Your task to perform on an android device: find which apps use the phone's location Image 0: 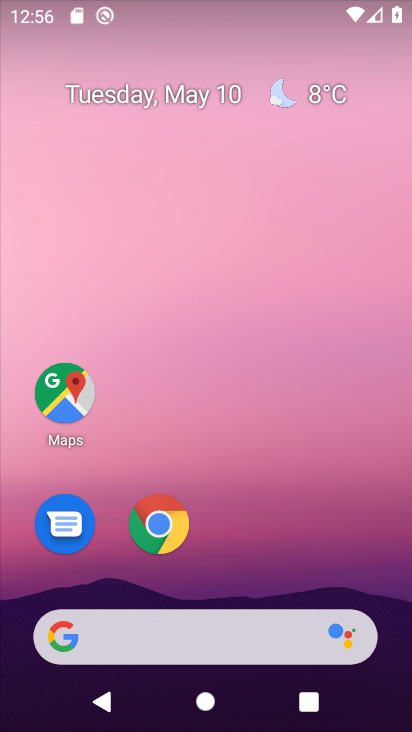
Step 0: drag from (234, 505) to (194, 39)
Your task to perform on an android device: find which apps use the phone's location Image 1: 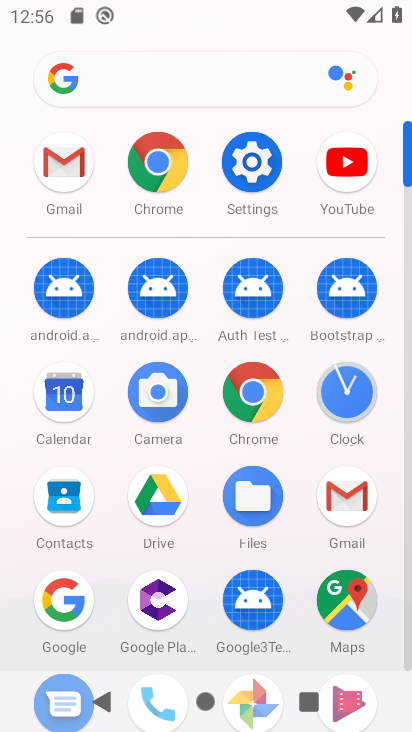
Step 1: click (253, 167)
Your task to perform on an android device: find which apps use the phone's location Image 2: 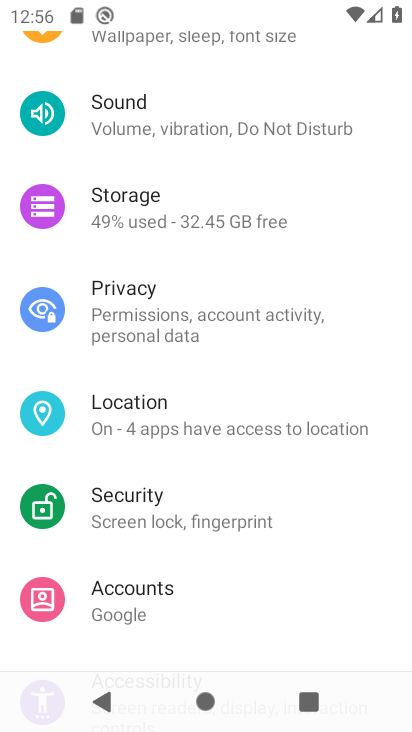
Step 2: click (221, 420)
Your task to perform on an android device: find which apps use the phone's location Image 3: 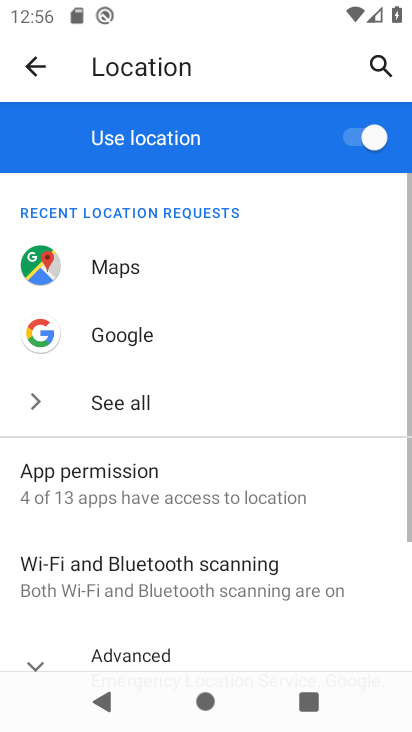
Step 3: click (151, 469)
Your task to perform on an android device: find which apps use the phone's location Image 4: 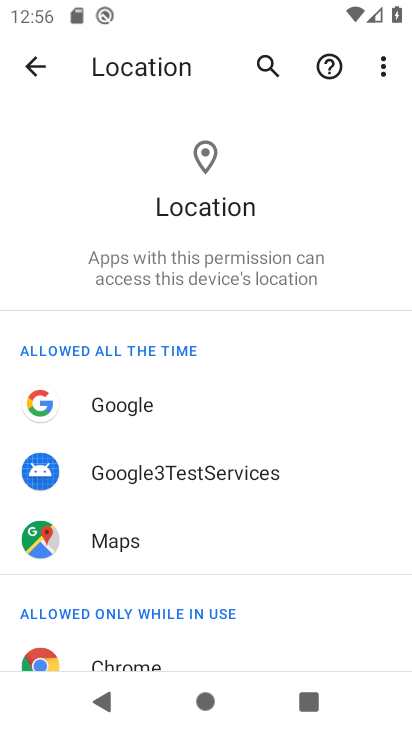
Step 4: task complete